Your task to perform on an android device: Open the stopwatch Image 0: 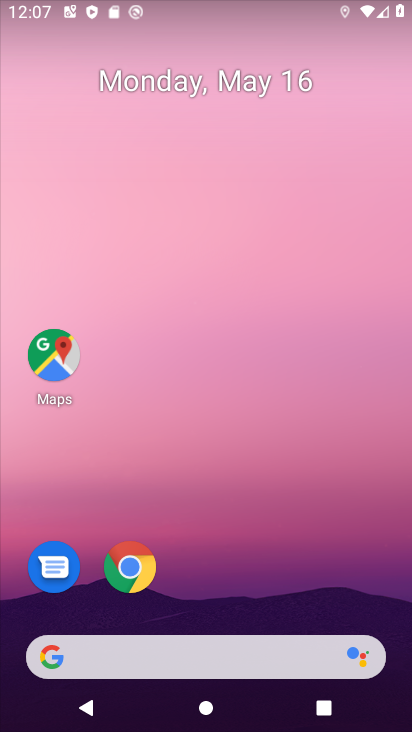
Step 0: drag from (302, 546) to (324, 116)
Your task to perform on an android device: Open the stopwatch Image 1: 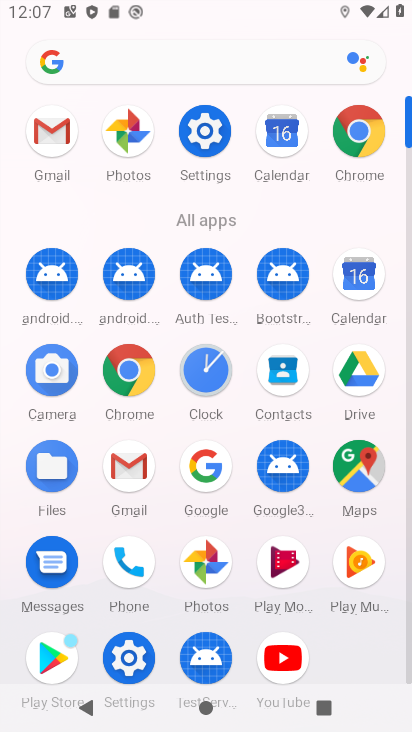
Step 1: click (208, 364)
Your task to perform on an android device: Open the stopwatch Image 2: 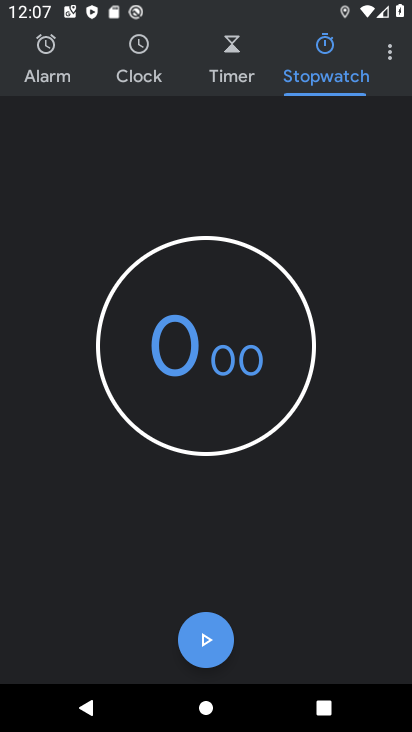
Step 2: task complete